Your task to perform on an android device: turn on showing notifications on the lock screen Image 0: 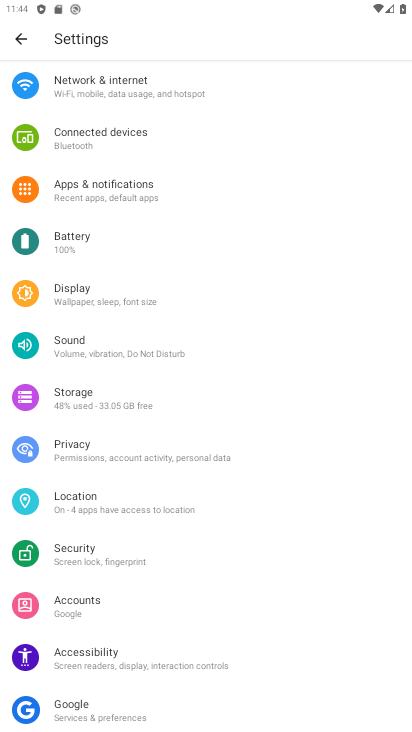
Step 0: click (88, 187)
Your task to perform on an android device: turn on showing notifications on the lock screen Image 1: 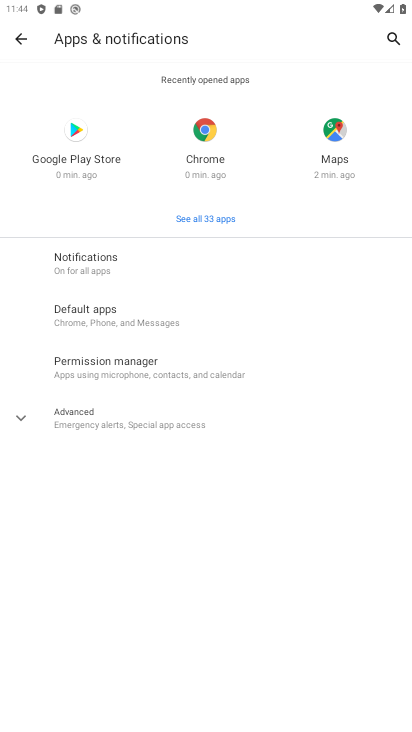
Step 1: click (83, 264)
Your task to perform on an android device: turn on showing notifications on the lock screen Image 2: 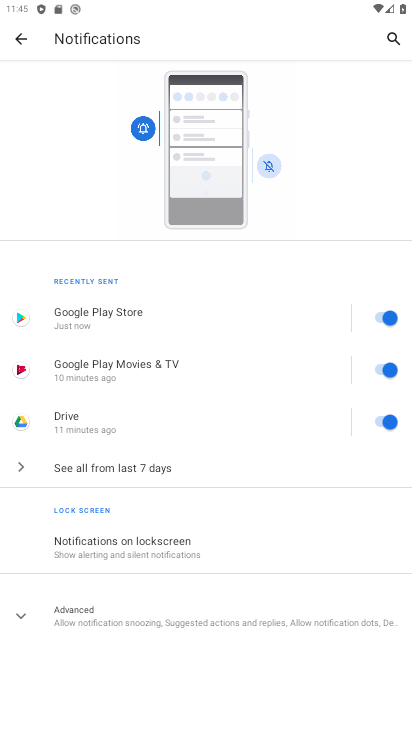
Step 2: click (107, 543)
Your task to perform on an android device: turn on showing notifications on the lock screen Image 3: 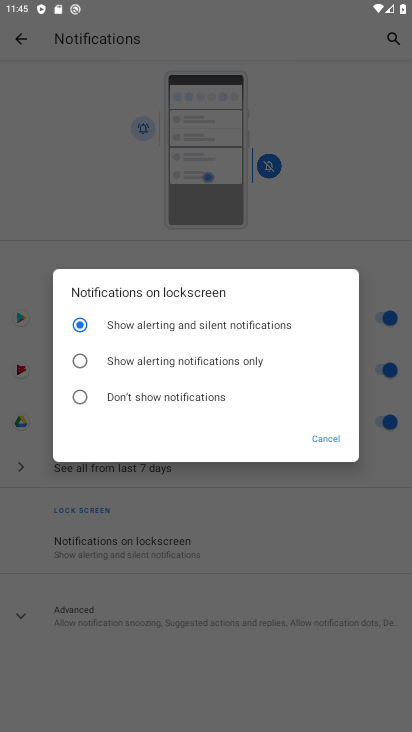
Step 3: task complete